Your task to perform on an android device: turn off improve location accuracy Image 0: 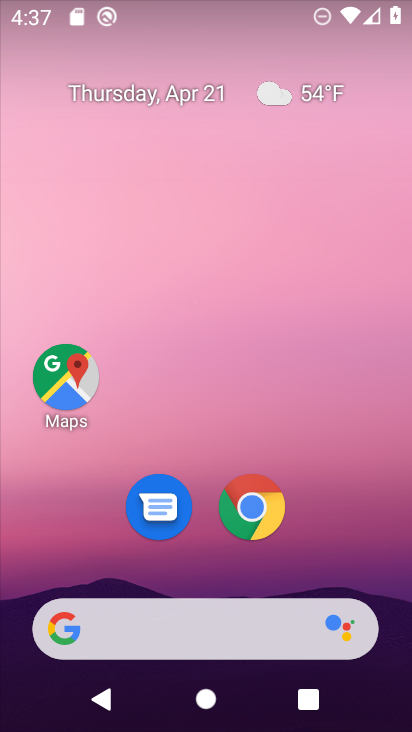
Step 0: drag from (377, 401) to (368, 63)
Your task to perform on an android device: turn off improve location accuracy Image 1: 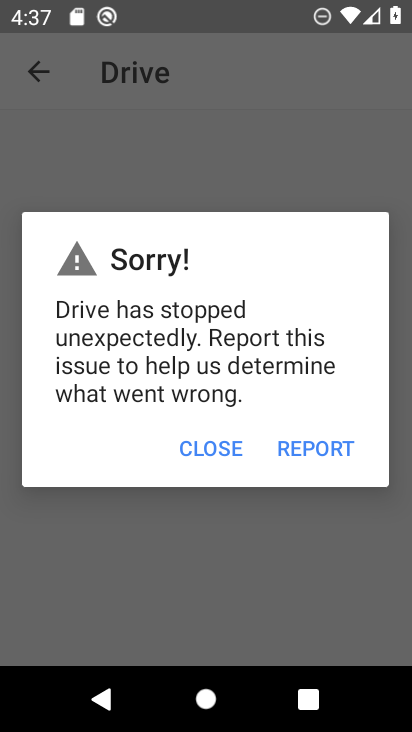
Step 1: press home button
Your task to perform on an android device: turn off improve location accuracy Image 2: 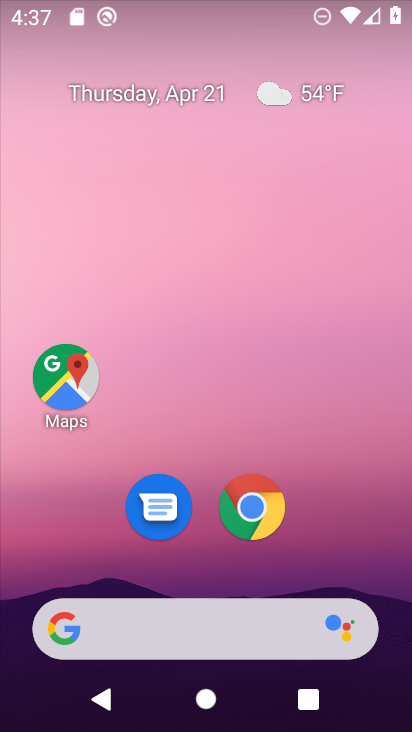
Step 2: drag from (358, 401) to (359, 98)
Your task to perform on an android device: turn off improve location accuracy Image 3: 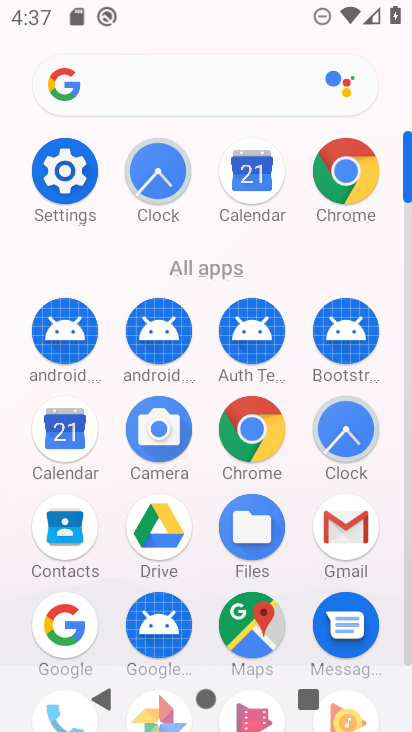
Step 3: click (51, 166)
Your task to perform on an android device: turn off improve location accuracy Image 4: 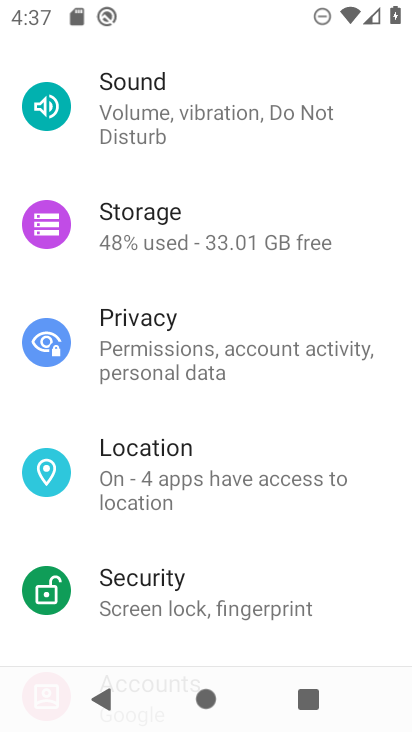
Step 4: click (170, 480)
Your task to perform on an android device: turn off improve location accuracy Image 5: 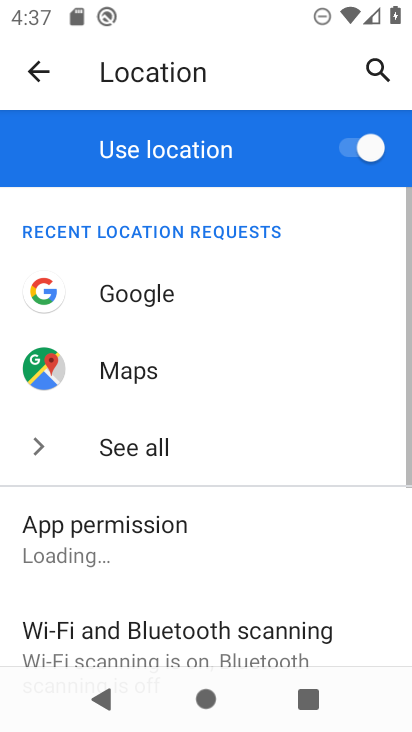
Step 5: drag from (228, 587) to (293, 253)
Your task to perform on an android device: turn off improve location accuracy Image 6: 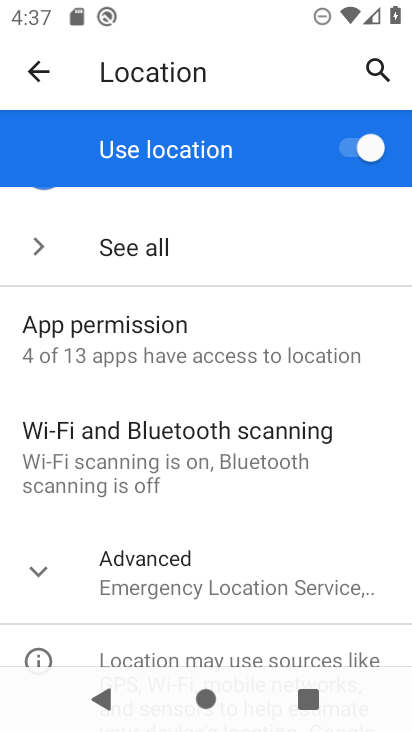
Step 6: drag from (152, 595) to (168, 320)
Your task to perform on an android device: turn off improve location accuracy Image 7: 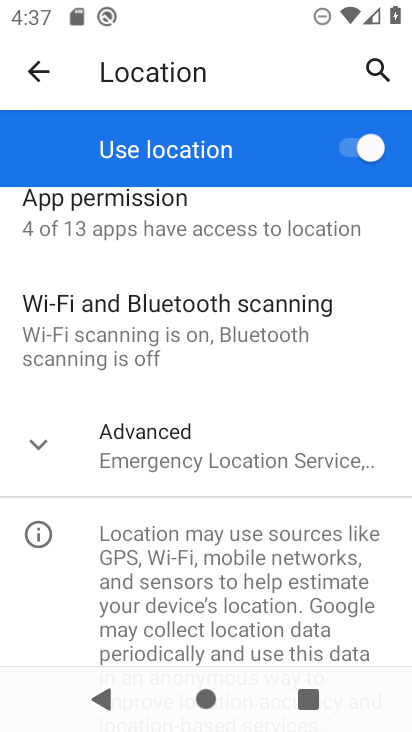
Step 7: click (154, 441)
Your task to perform on an android device: turn off improve location accuracy Image 8: 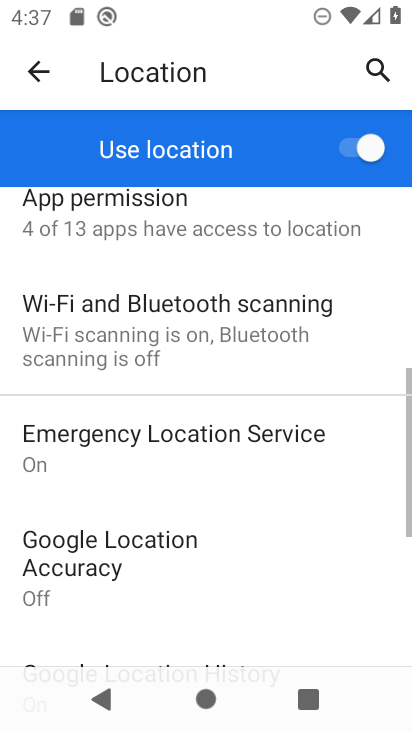
Step 8: drag from (201, 568) to (278, 274)
Your task to perform on an android device: turn off improve location accuracy Image 9: 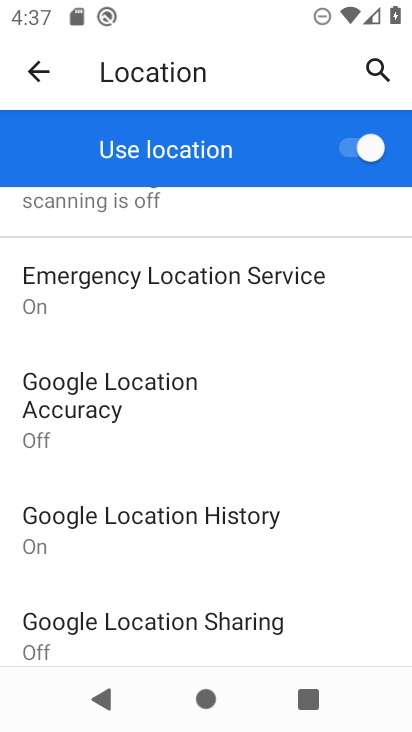
Step 9: click (136, 398)
Your task to perform on an android device: turn off improve location accuracy Image 10: 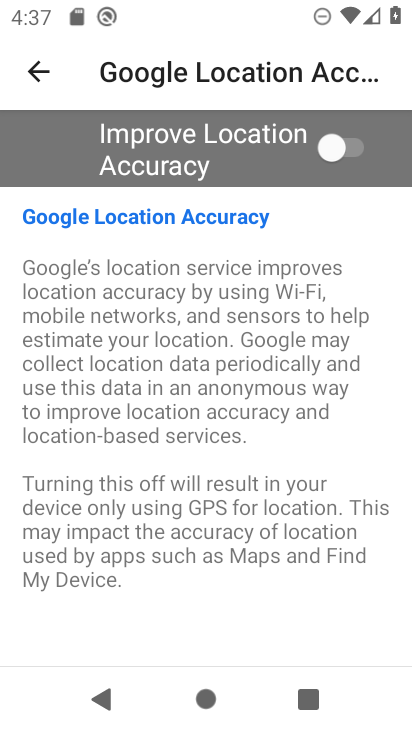
Step 10: task complete